Your task to perform on an android device: toggle notification dots Image 0: 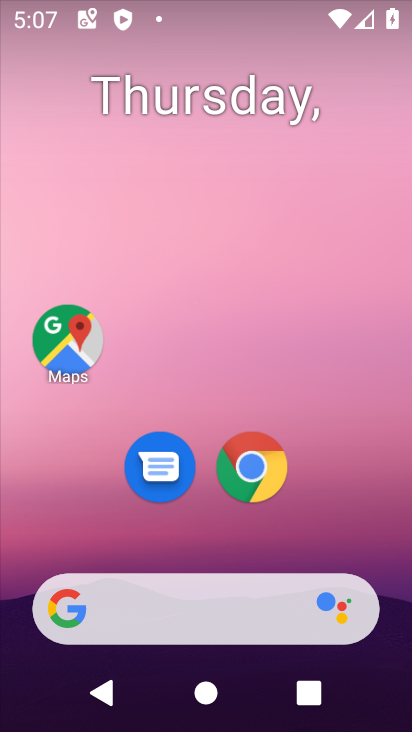
Step 0: drag from (388, 560) to (268, 120)
Your task to perform on an android device: toggle notification dots Image 1: 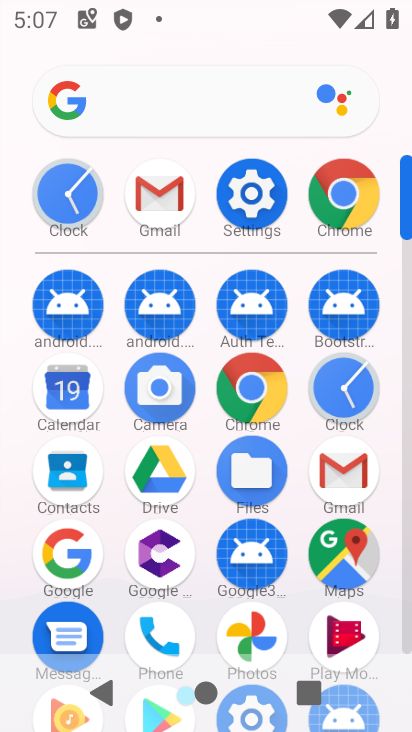
Step 1: click (259, 184)
Your task to perform on an android device: toggle notification dots Image 2: 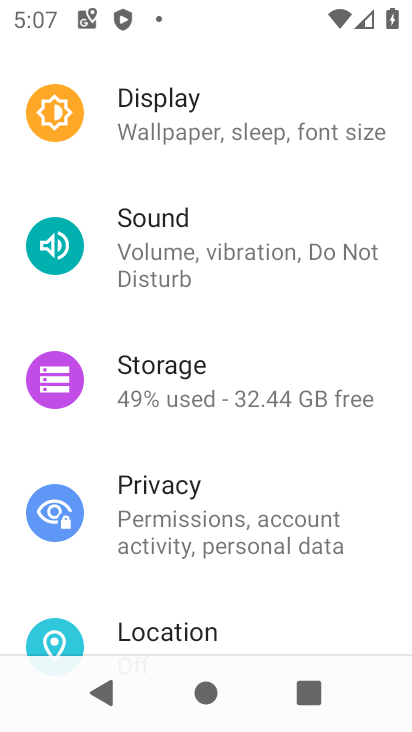
Step 2: drag from (266, 168) to (270, 575)
Your task to perform on an android device: toggle notification dots Image 3: 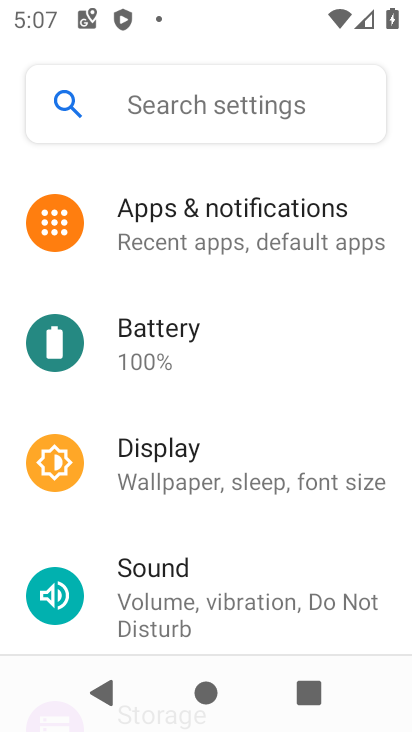
Step 3: click (223, 218)
Your task to perform on an android device: toggle notification dots Image 4: 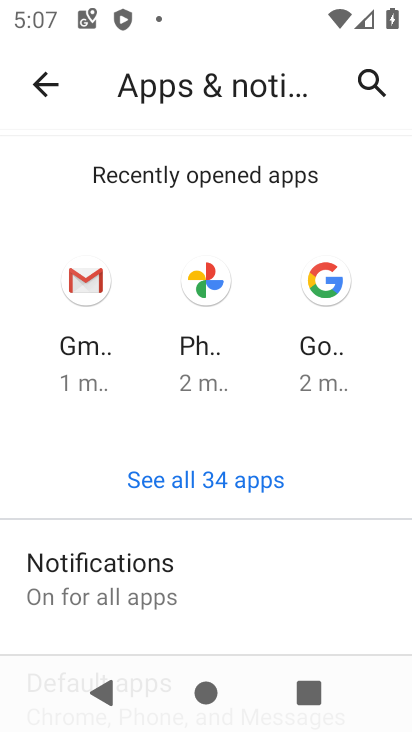
Step 4: click (242, 600)
Your task to perform on an android device: toggle notification dots Image 5: 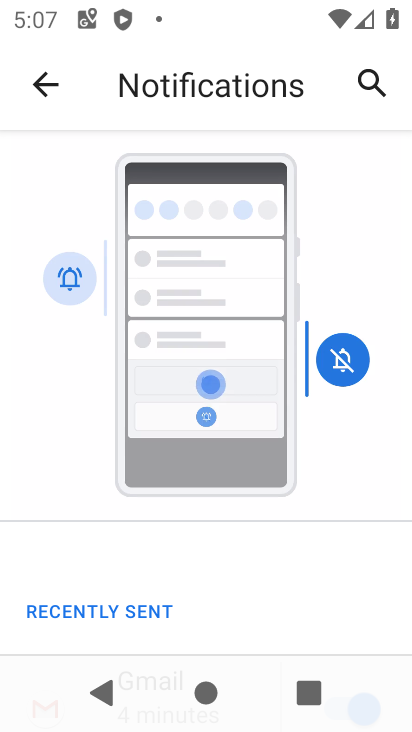
Step 5: drag from (242, 600) to (214, 136)
Your task to perform on an android device: toggle notification dots Image 6: 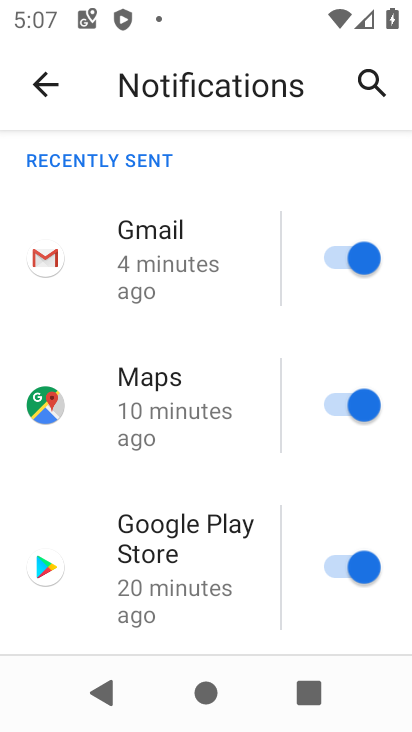
Step 6: drag from (313, 629) to (265, 157)
Your task to perform on an android device: toggle notification dots Image 7: 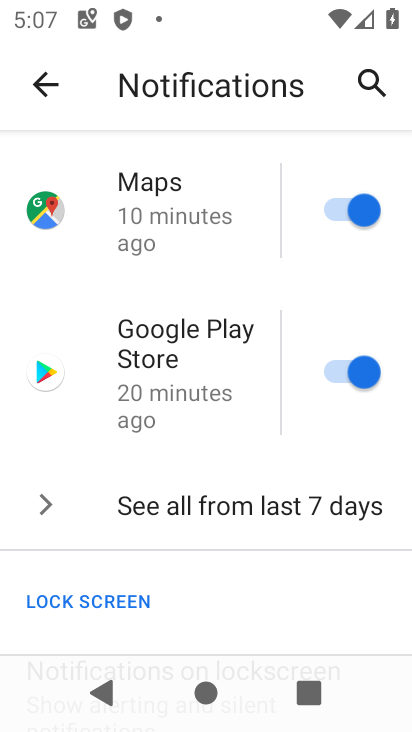
Step 7: drag from (312, 600) to (219, 182)
Your task to perform on an android device: toggle notification dots Image 8: 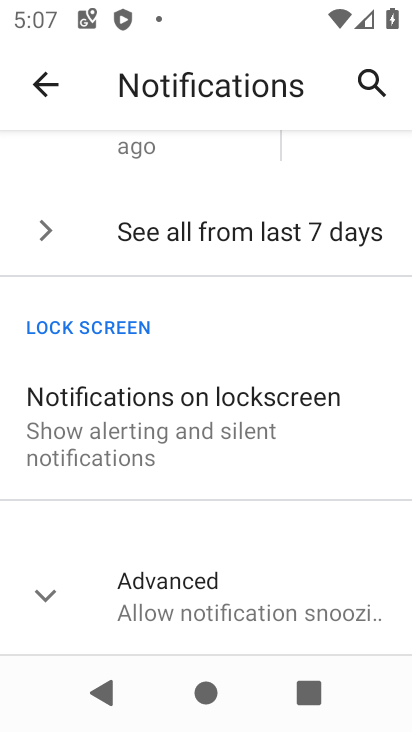
Step 8: click (283, 578)
Your task to perform on an android device: toggle notification dots Image 9: 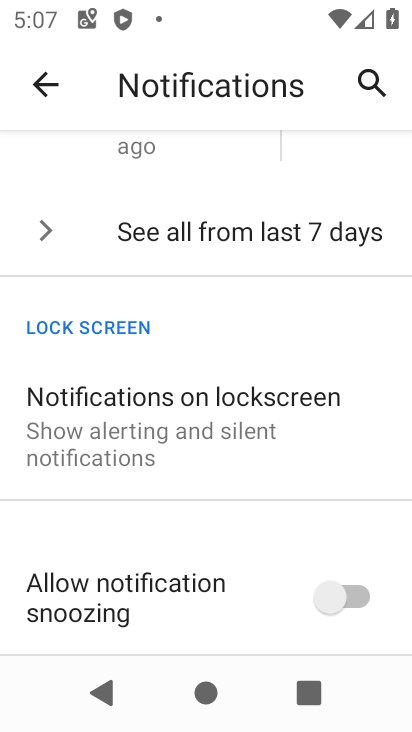
Step 9: drag from (283, 578) to (253, 281)
Your task to perform on an android device: toggle notification dots Image 10: 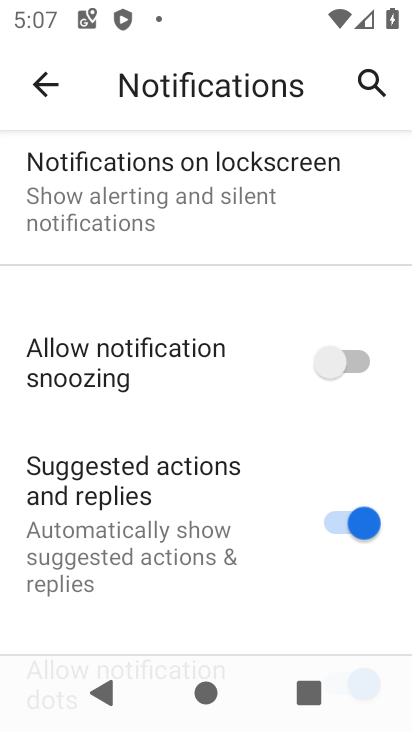
Step 10: drag from (289, 569) to (238, 214)
Your task to perform on an android device: toggle notification dots Image 11: 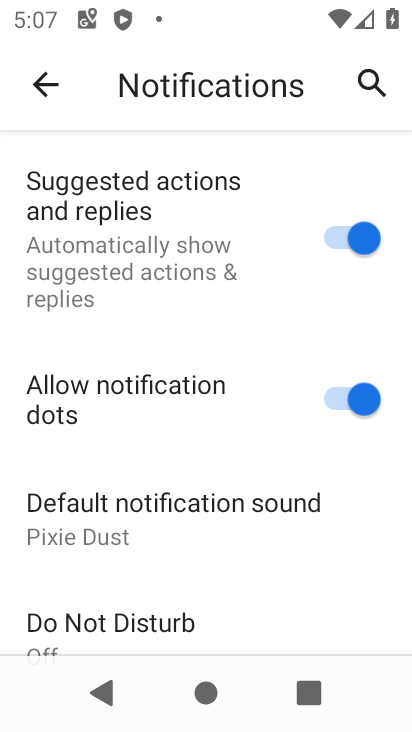
Step 11: click (359, 410)
Your task to perform on an android device: toggle notification dots Image 12: 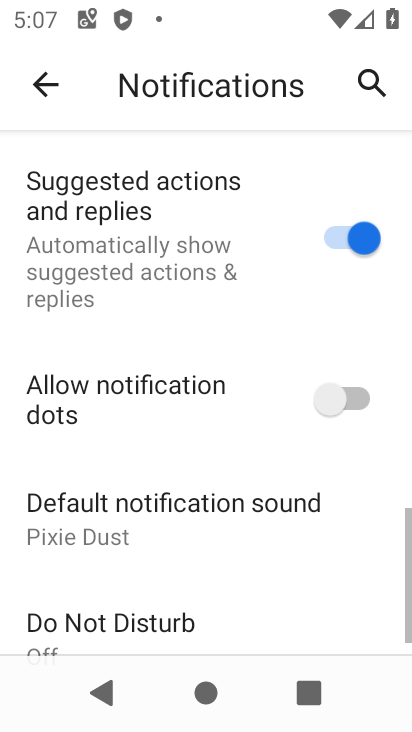
Step 12: task complete